Your task to perform on an android device: Go to settings Image 0: 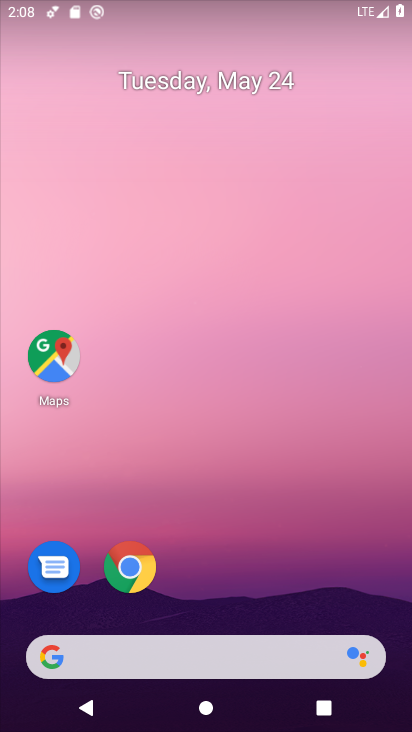
Step 0: drag from (211, 587) to (375, 3)
Your task to perform on an android device: Go to settings Image 1: 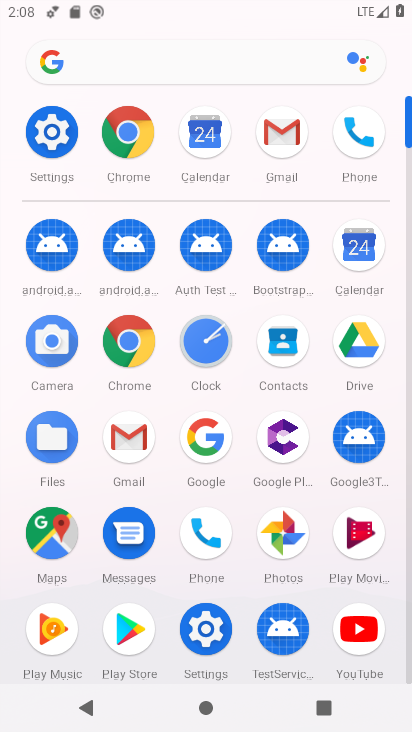
Step 1: click (48, 141)
Your task to perform on an android device: Go to settings Image 2: 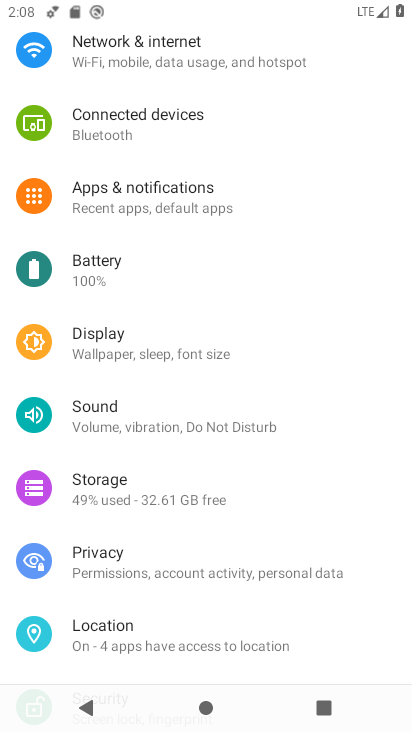
Step 2: task complete